Your task to perform on an android device: Go to ESPN.com Image 0: 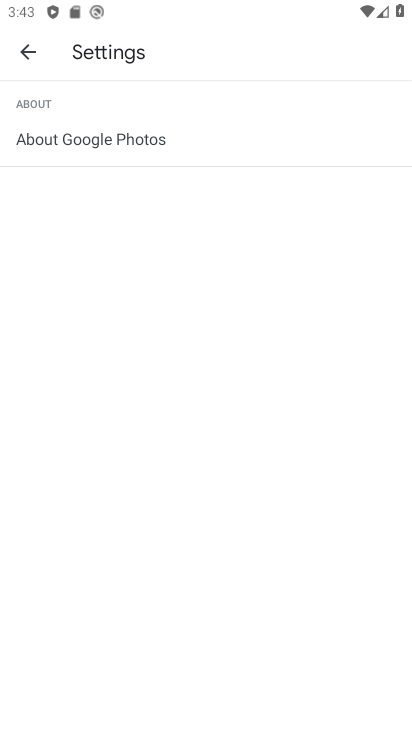
Step 0: press home button
Your task to perform on an android device: Go to ESPN.com Image 1: 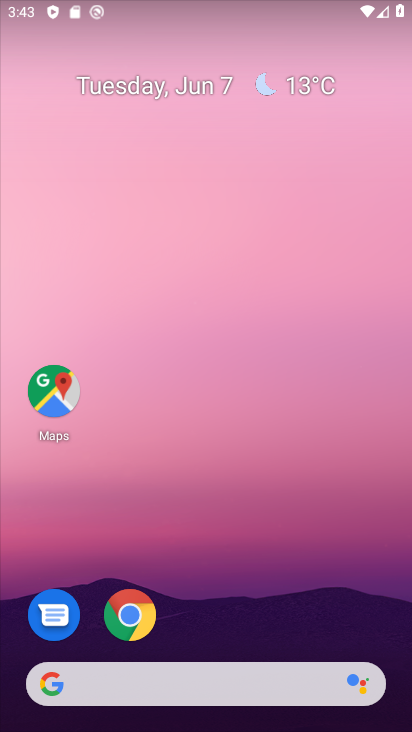
Step 1: drag from (235, 718) to (231, 71)
Your task to perform on an android device: Go to ESPN.com Image 2: 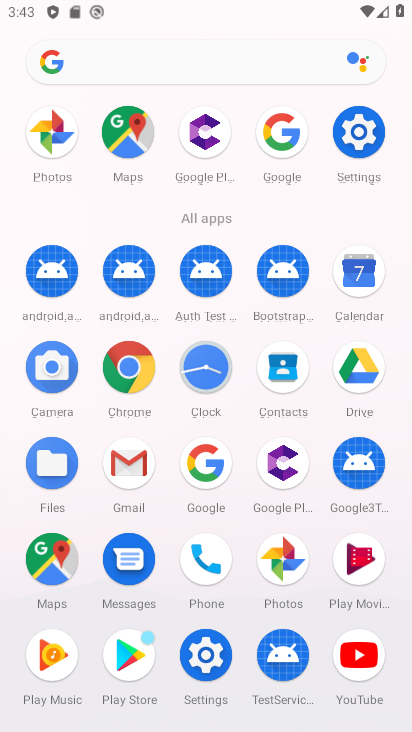
Step 2: click (123, 365)
Your task to perform on an android device: Go to ESPN.com Image 3: 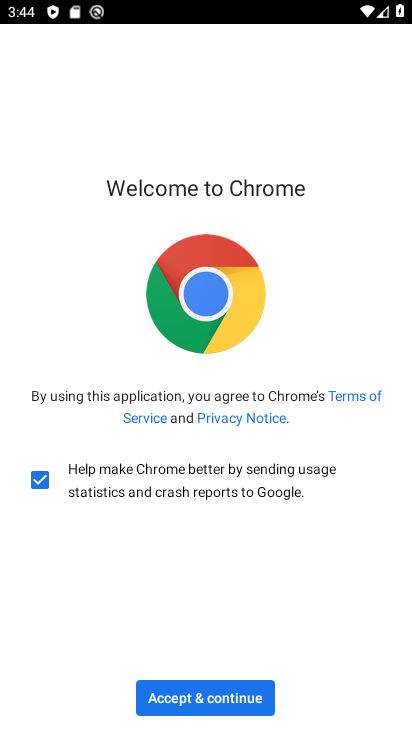
Step 3: click (199, 696)
Your task to perform on an android device: Go to ESPN.com Image 4: 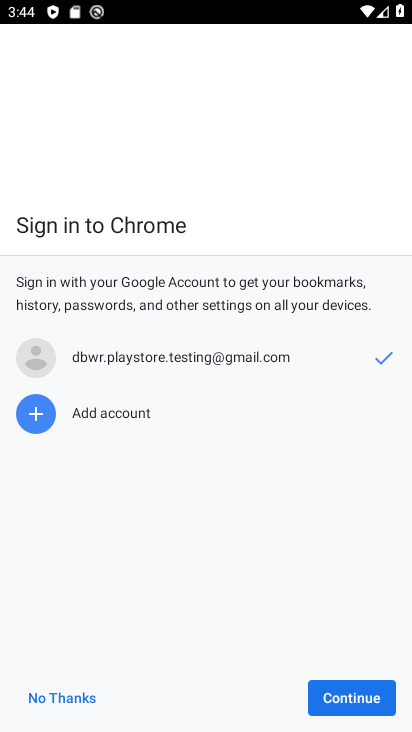
Step 4: click (355, 691)
Your task to perform on an android device: Go to ESPN.com Image 5: 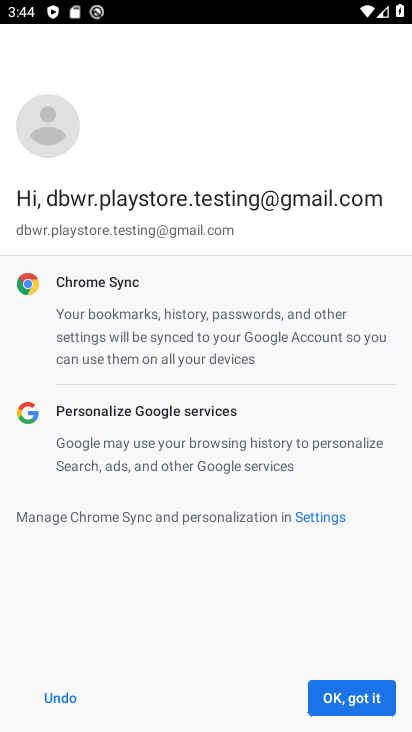
Step 5: click (355, 691)
Your task to perform on an android device: Go to ESPN.com Image 6: 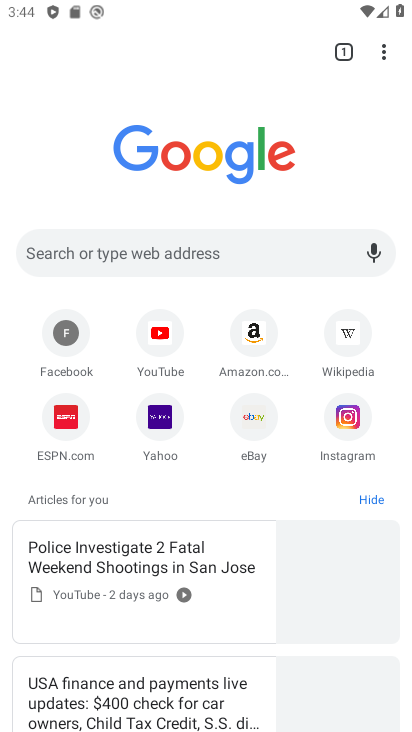
Step 6: click (67, 419)
Your task to perform on an android device: Go to ESPN.com Image 7: 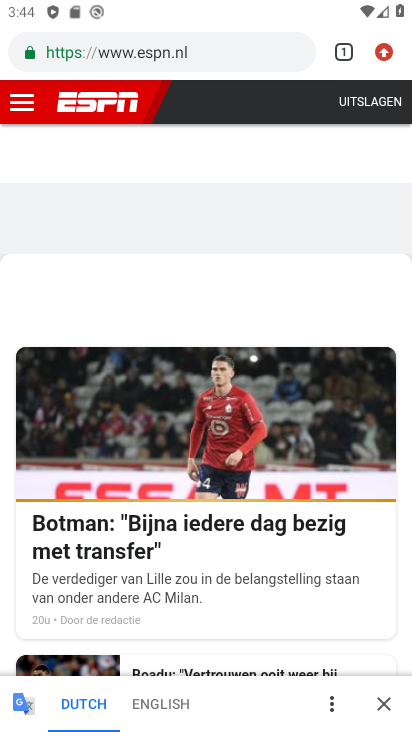
Step 7: task complete